Your task to perform on an android device: clear all cookies in the chrome app Image 0: 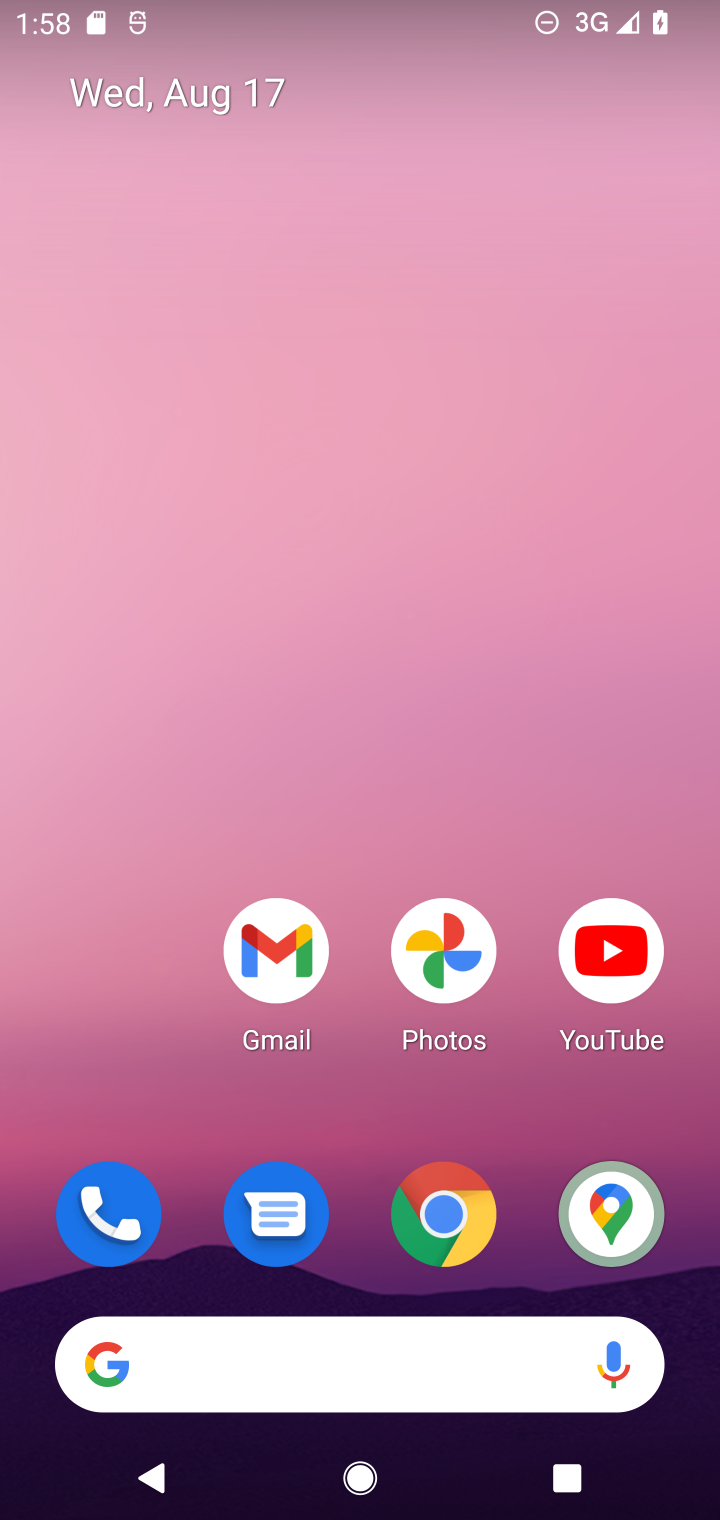
Step 0: click (446, 1221)
Your task to perform on an android device: clear all cookies in the chrome app Image 1: 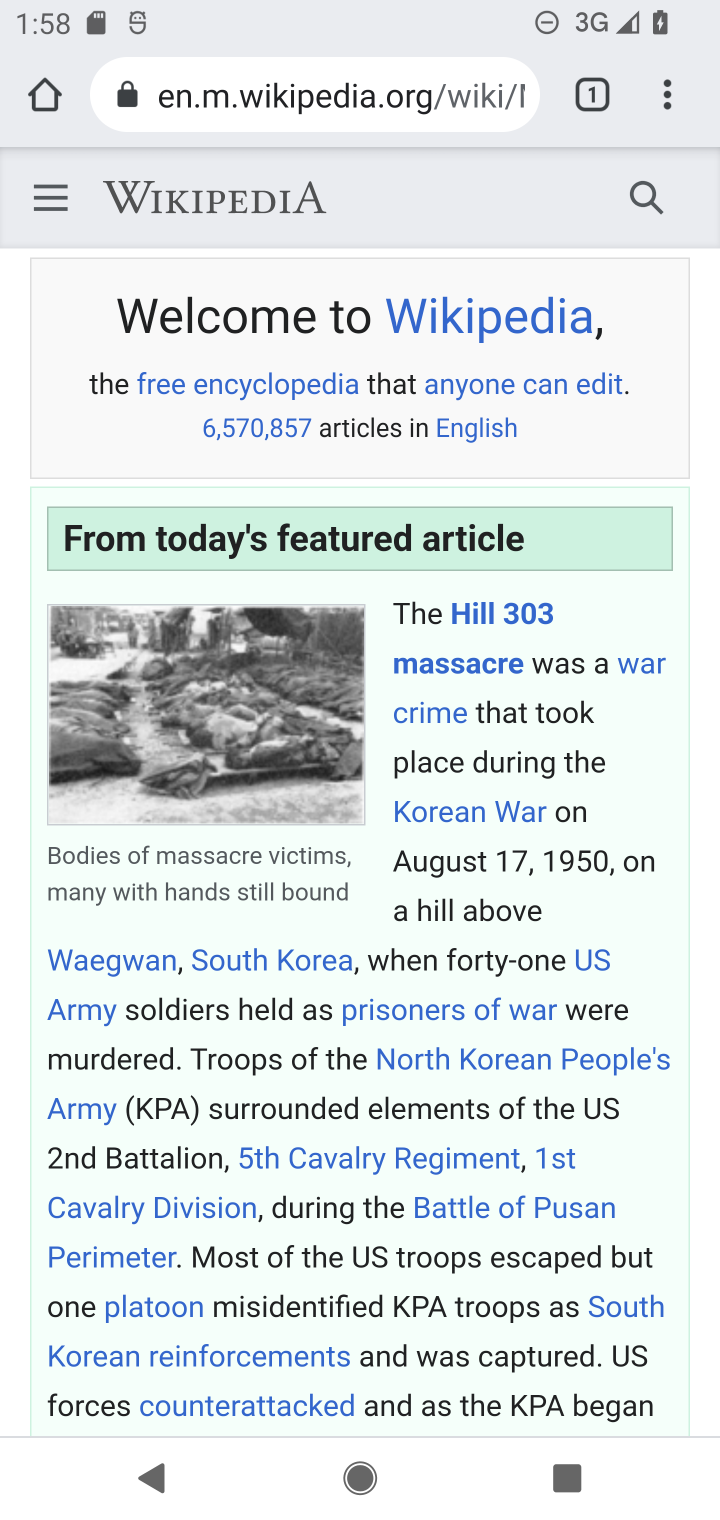
Step 1: click (675, 91)
Your task to perform on an android device: clear all cookies in the chrome app Image 2: 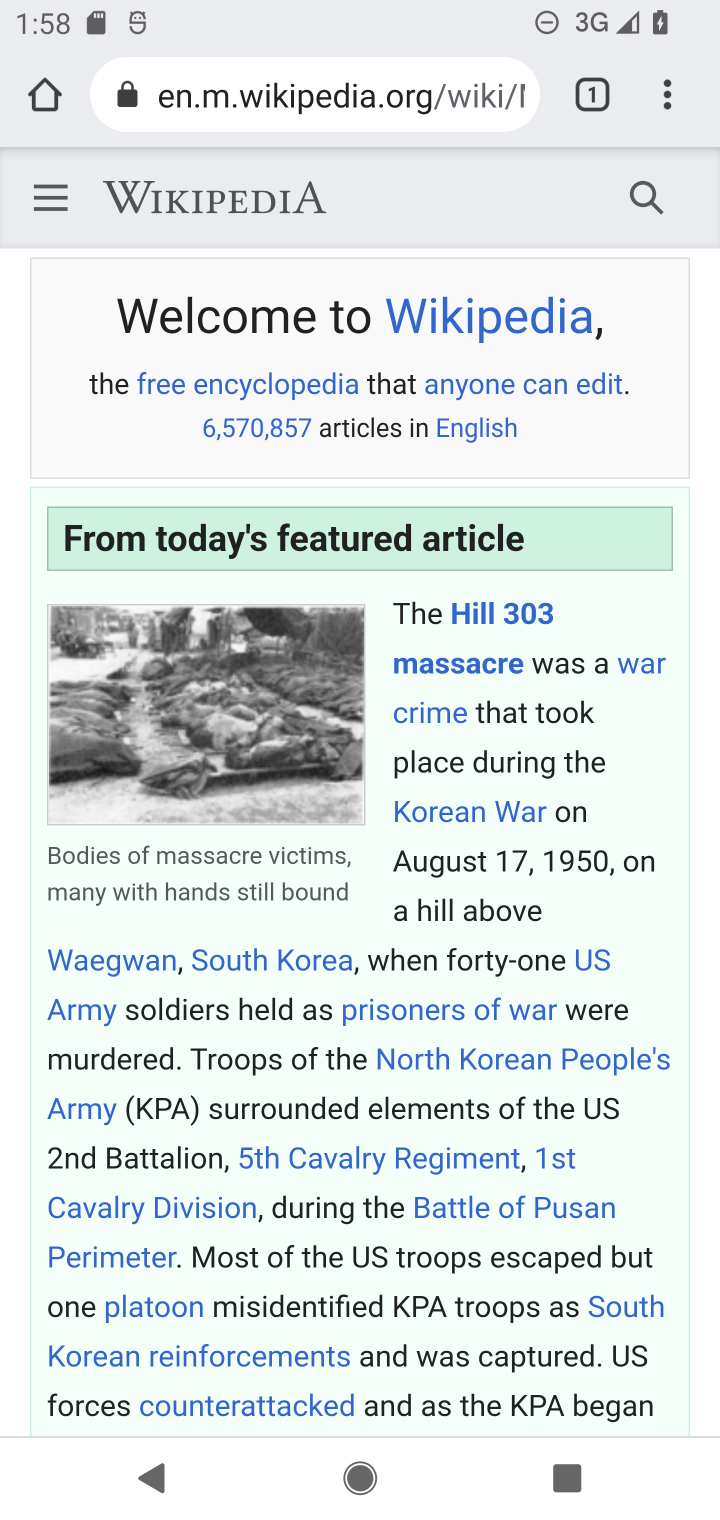
Step 2: click (652, 103)
Your task to perform on an android device: clear all cookies in the chrome app Image 3: 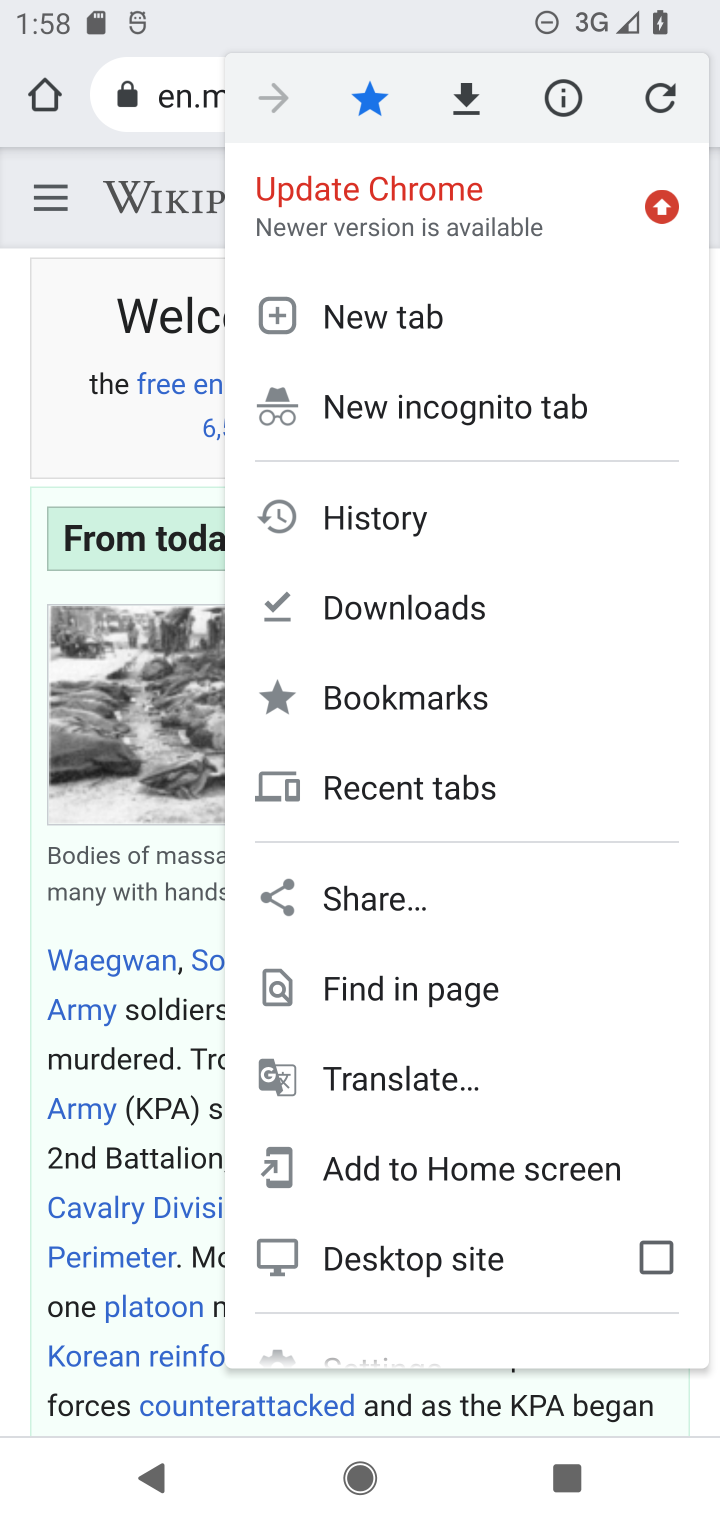
Step 3: click (383, 504)
Your task to perform on an android device: clear all cookies in the chrome app Image 4: 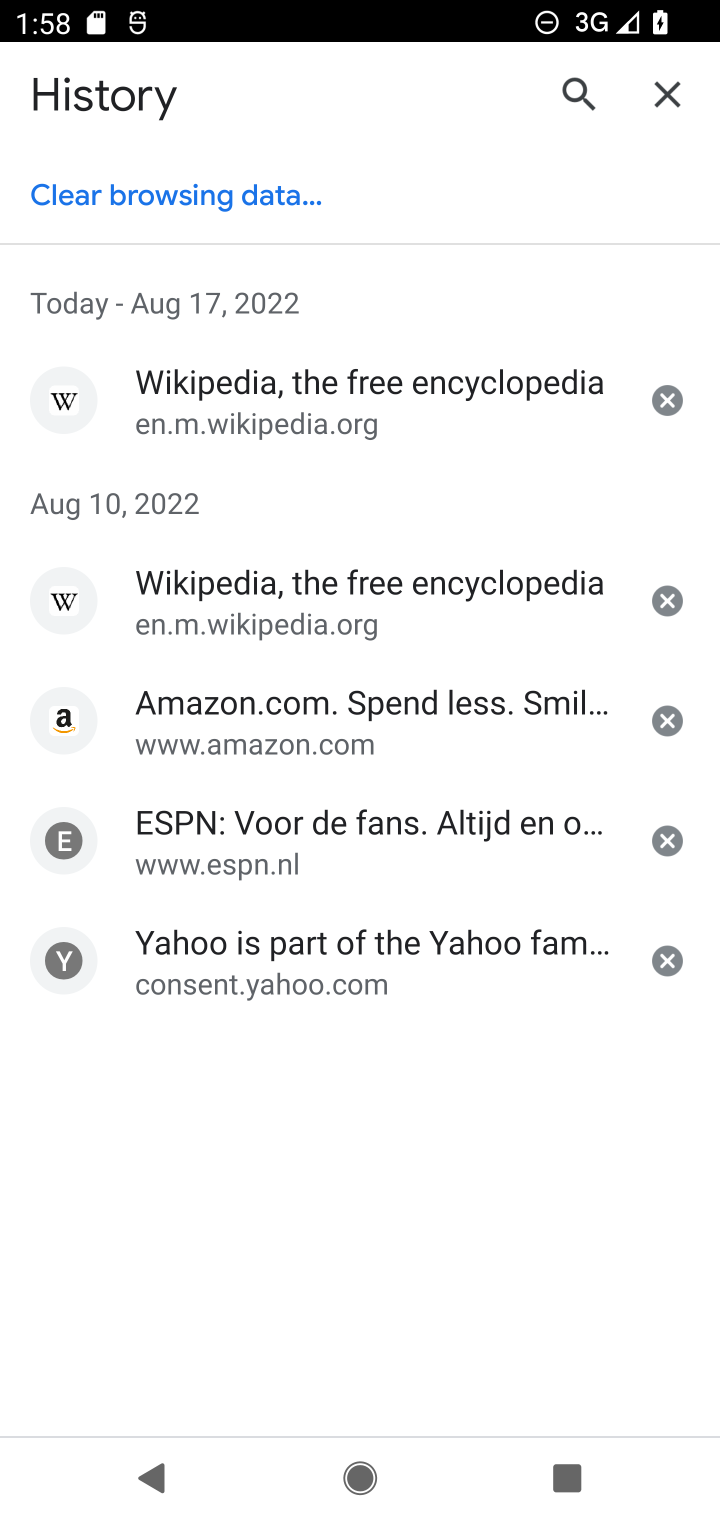
Step 4: click (176, 196)
Your task to perform on an android device: clear all cookies in the chrome app Image 5: 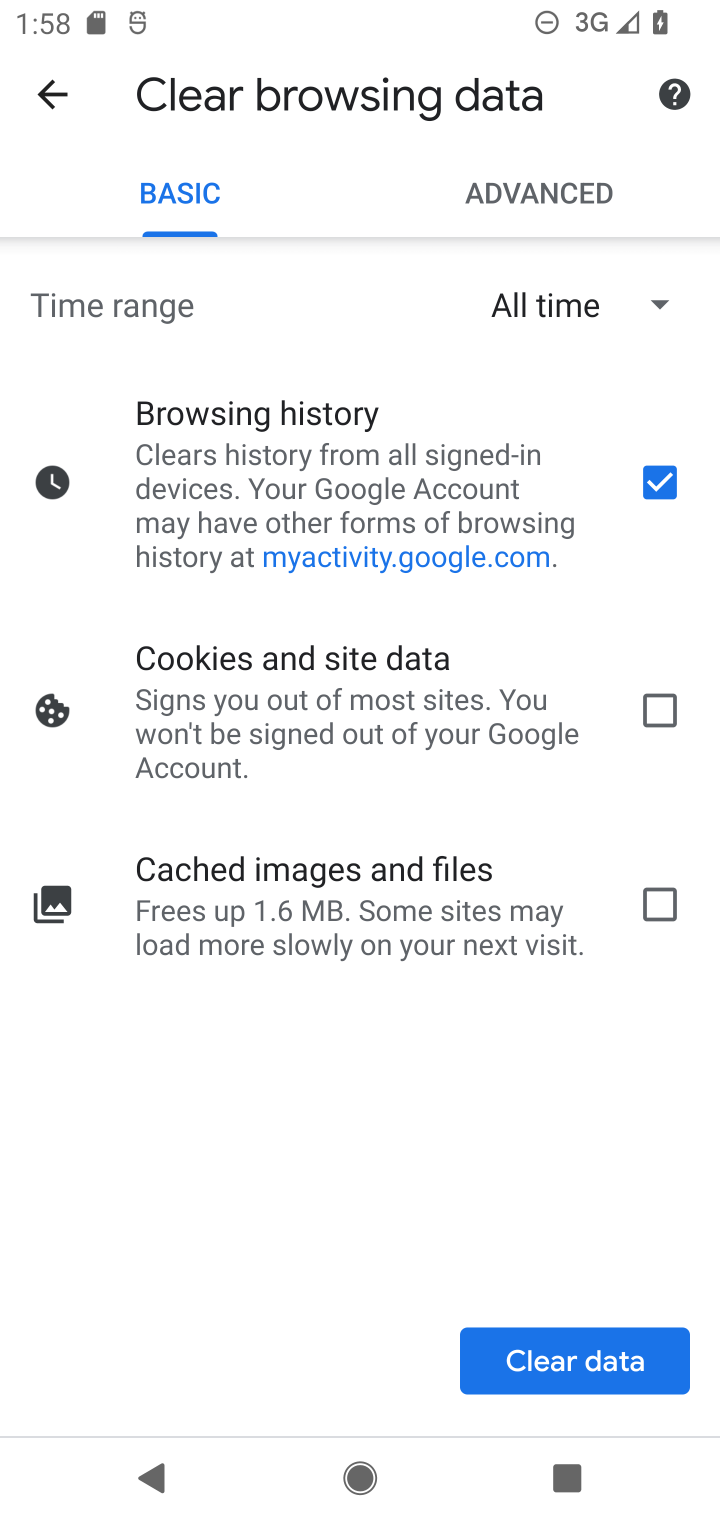
Step 5: click (662, 468)
Your task to perform on an android device: clear all cookies in the chrome app Image 6: 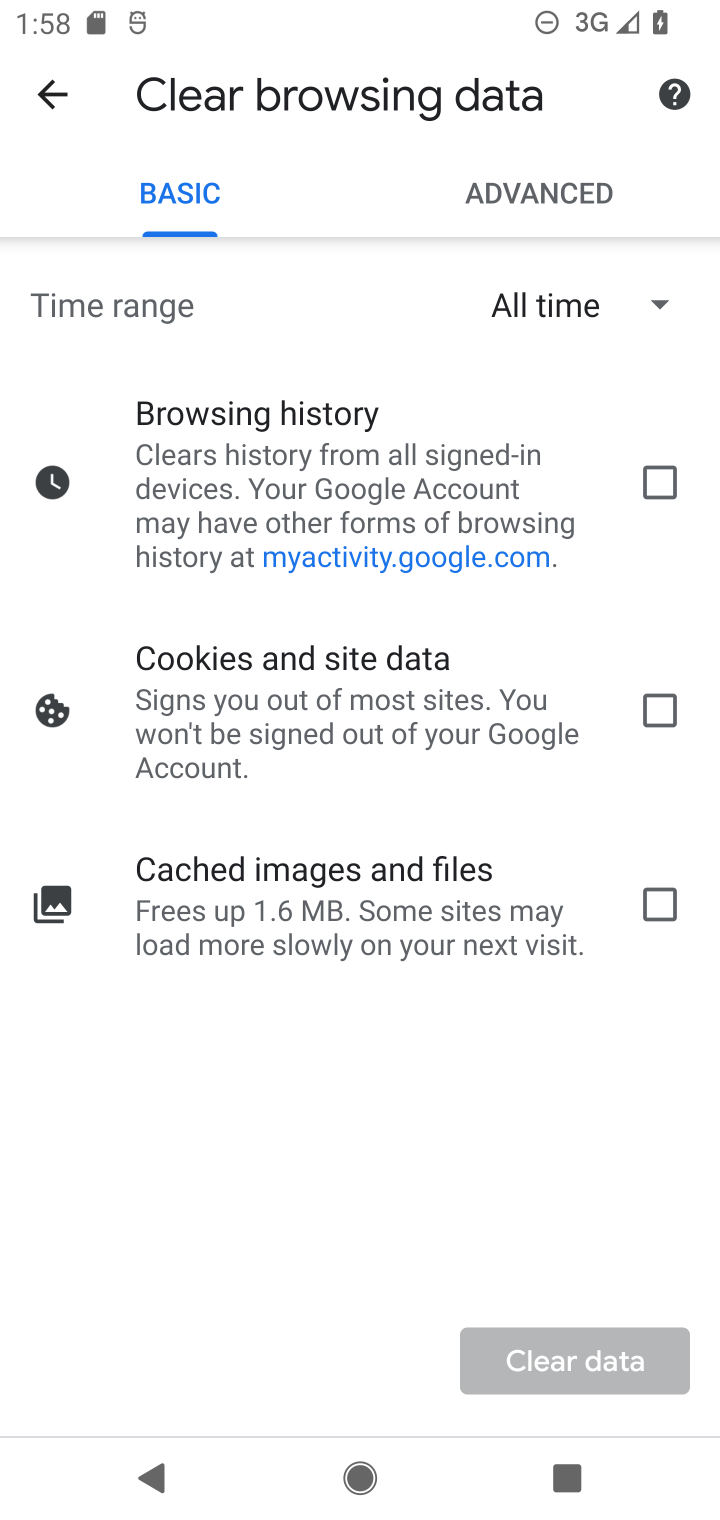
Step 6: click (668, 697)
Your task to perform on an android device: clear all cookies in the chrome app Image 7: 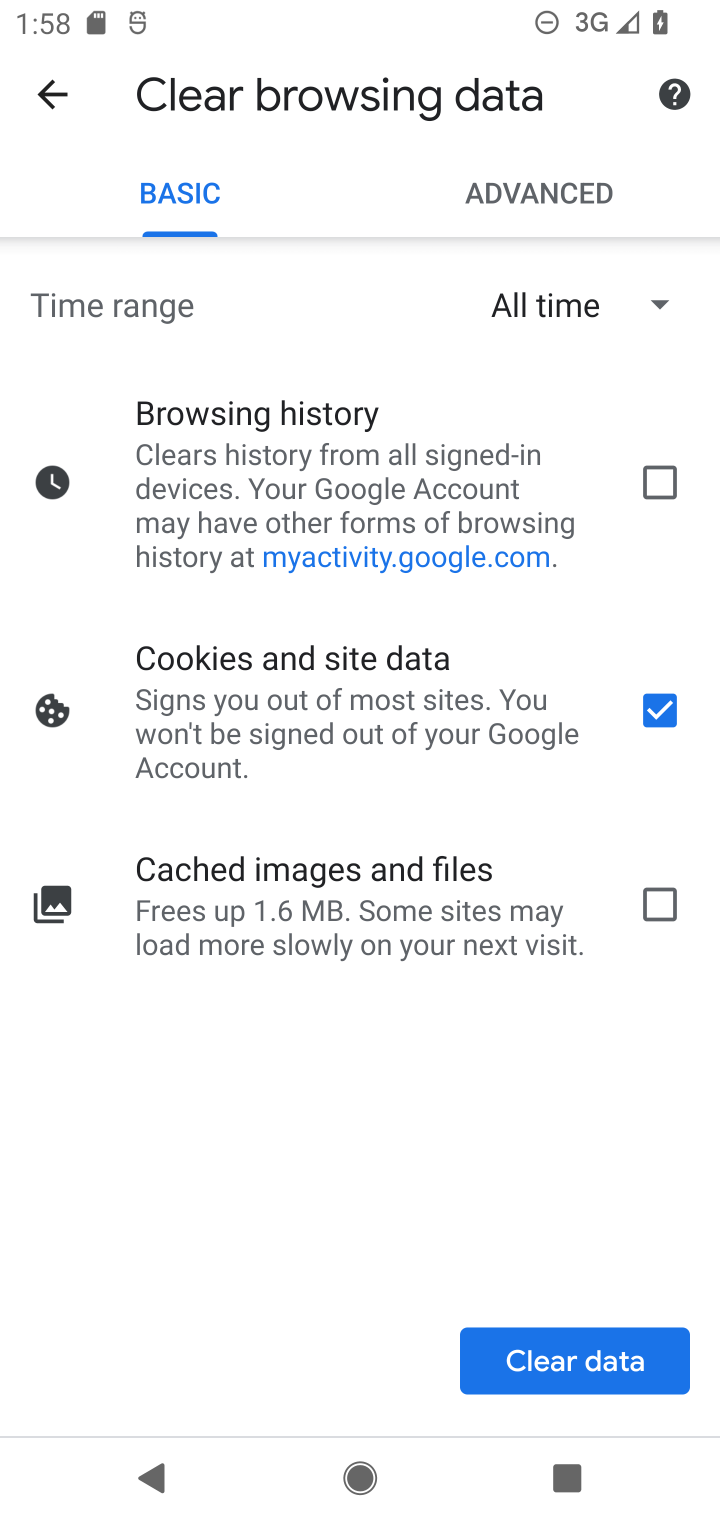
Step 7: click (560, 1377)
Your task to perform on an android device: clear all cookies in the chrome app Image 8: 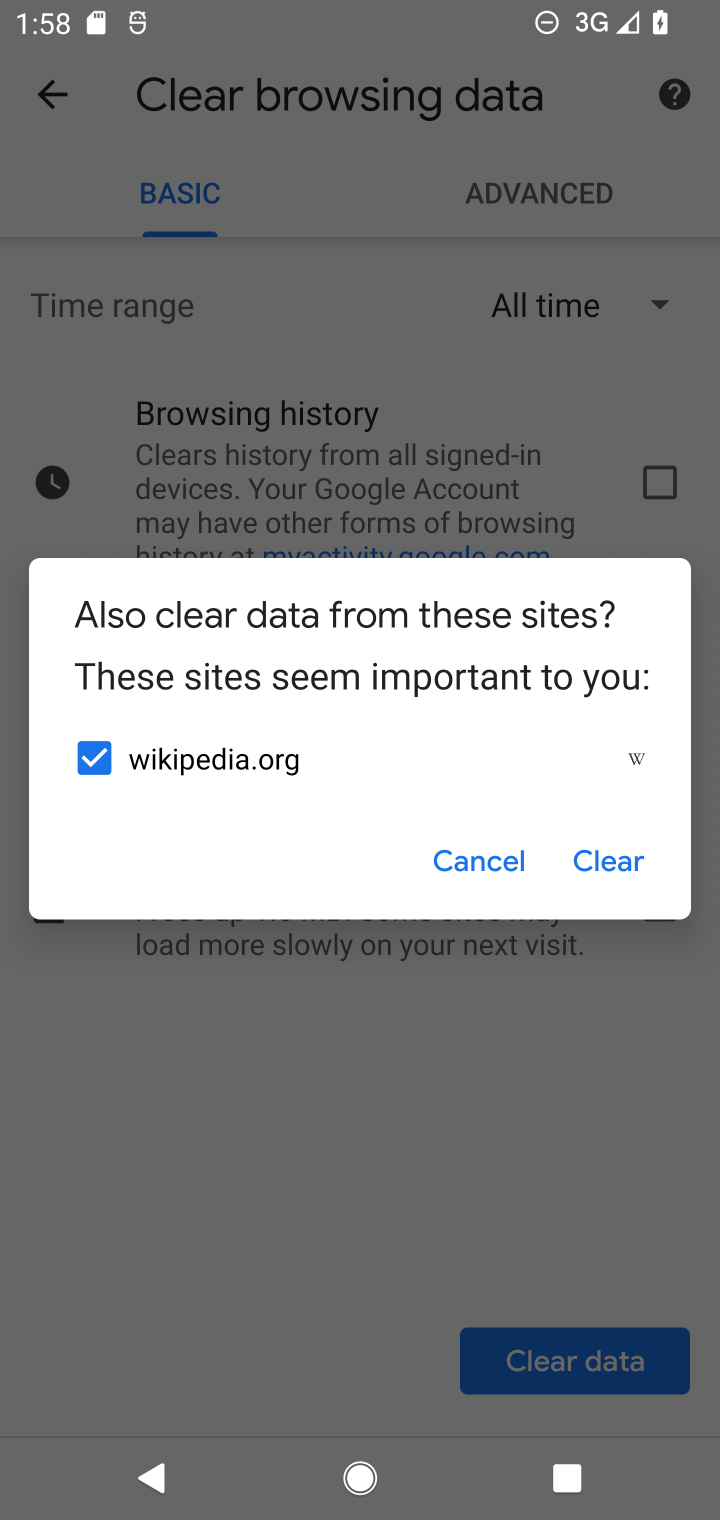
Step 8: click (614, 854)
Your task to perform on an android device: clear all cookies in the chrome app Image 9: 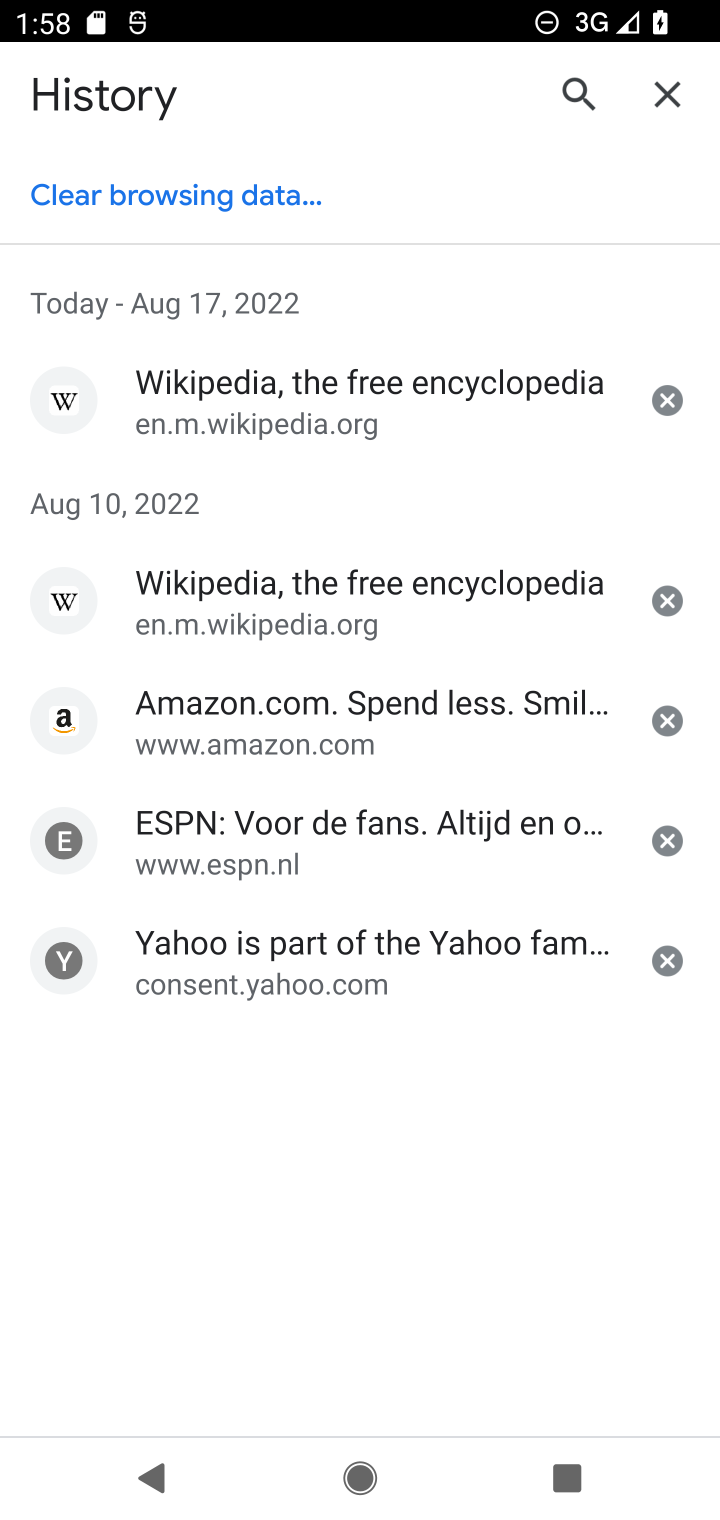
Step 9: task complete